Your task to perform on an android device: turn off notifications in google photos Image 0: 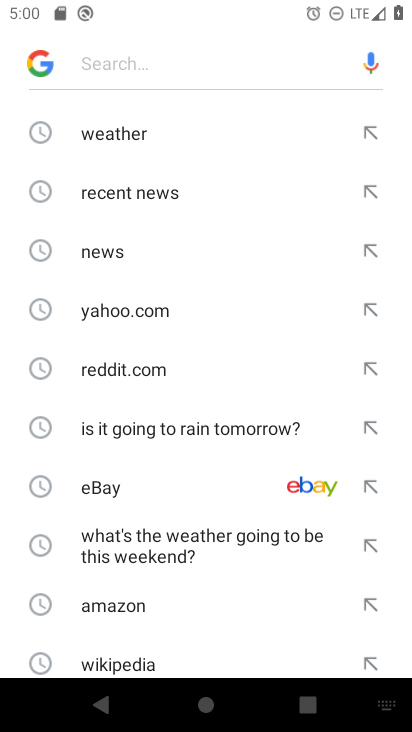
Step 0: press home button
Your task to perform on an android device: turn off notifications in google photos Image 1: 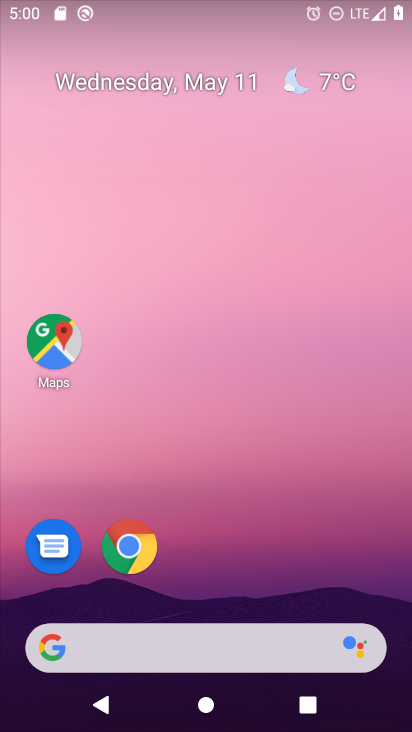
Step 1: drag from (304, 636) to (224, 27)
Your task to perform on an android device: turn off notifications in google photos Image 2: 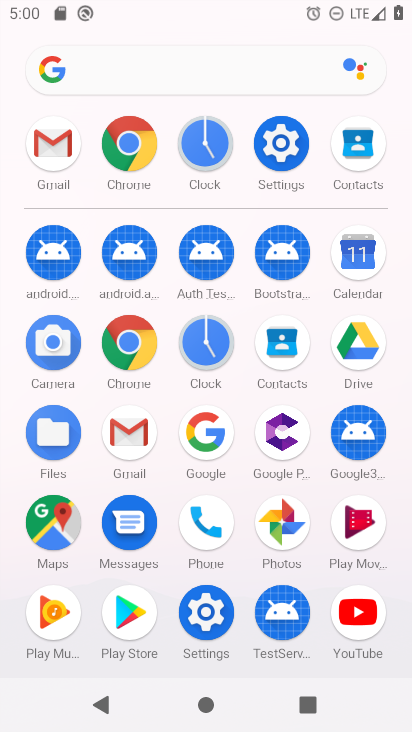
Step 2: click (290, 523)
Your task to perform on an android device: turn off notifications in google photos Image 3: 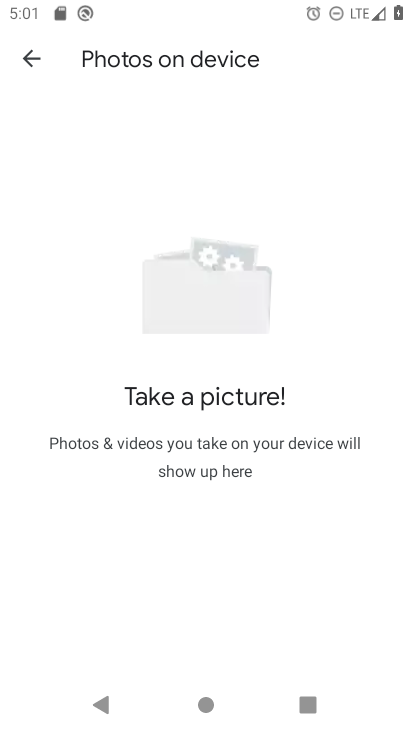
Step 3: press home button
Your task to perform on an android device: turn off notifications in google photos Image 4: 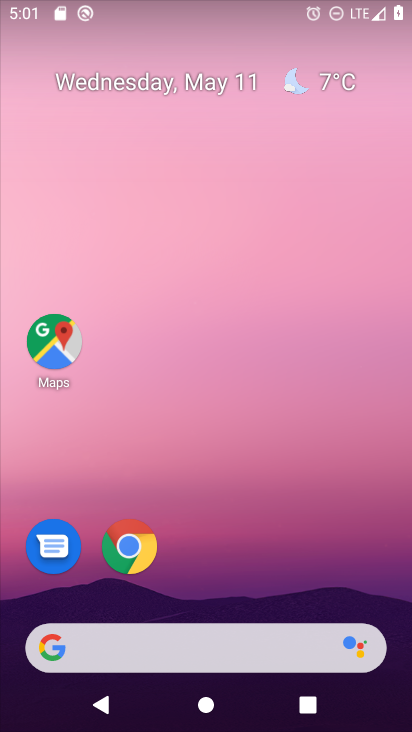
Step 4: drag from (307, 594) to (358, 3)
Your task to perform on an android device: turn off notifications in google photos Image 5: 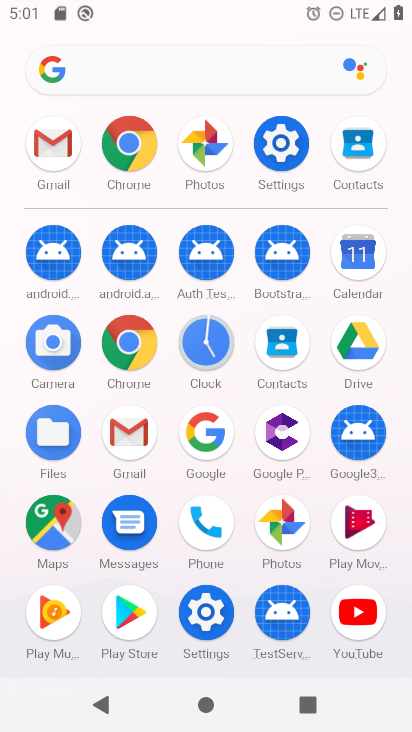
Step 5: click (288, 531)
Your task to perform on an android device: turn off notifications in google photos Image 6: 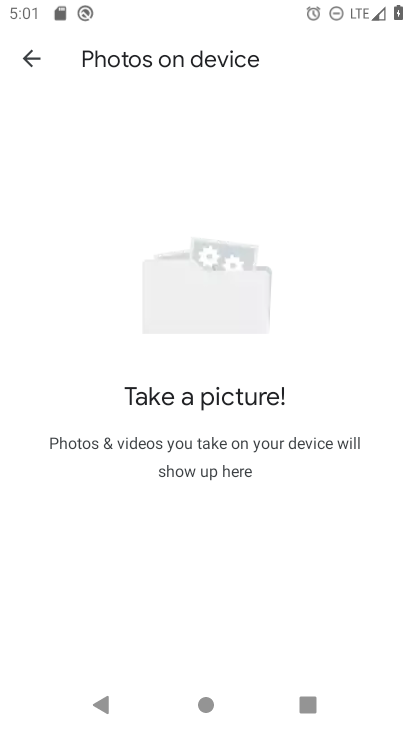
Step 6: press back button
Your task to perform on an android device: turn off notifications in google photos Image 7: 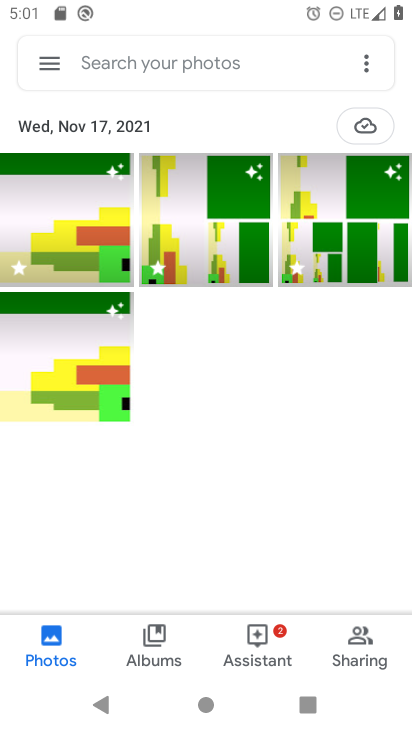
Step 7: click (56, 59)
Your task to perform on an android device: turn off notifications in google photos Image 8: 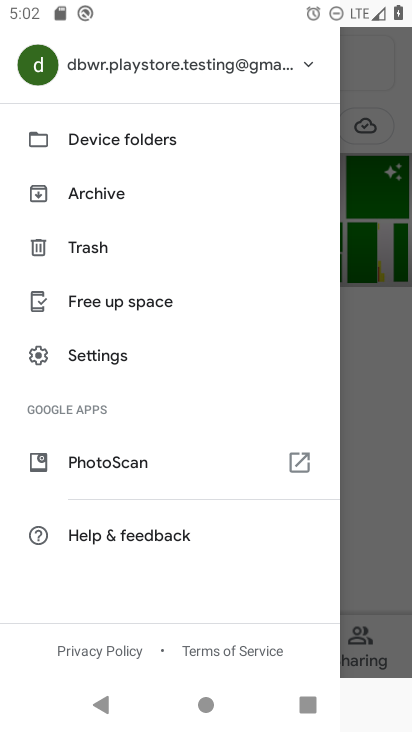
Step 8: click (112, 349)
Your task to perform on an android device: turn off notifications in google photos Image 9: 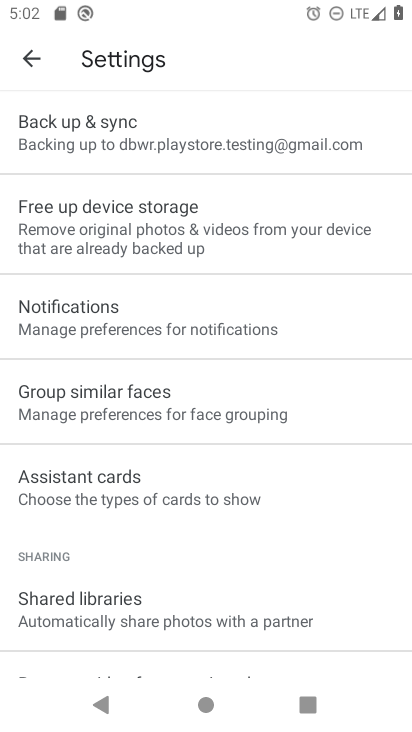
Step 9: click (180, 315)
Your task to perform on an android device: turn off notifications in google photos Image 10: 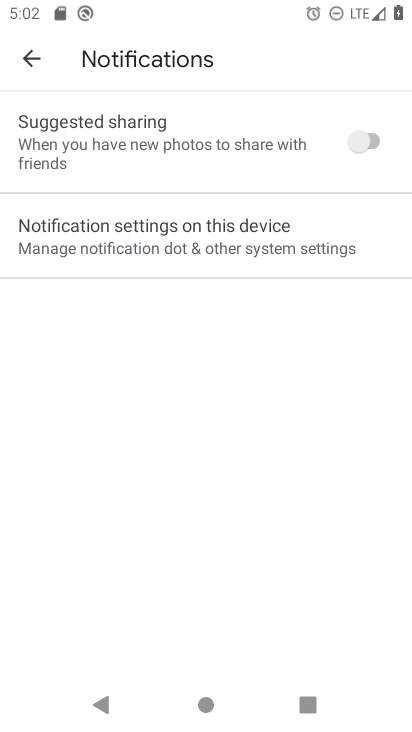
Step 10: click (204, 247)
Your task to perform on an android device: turn off notifications in google photos Image 11: 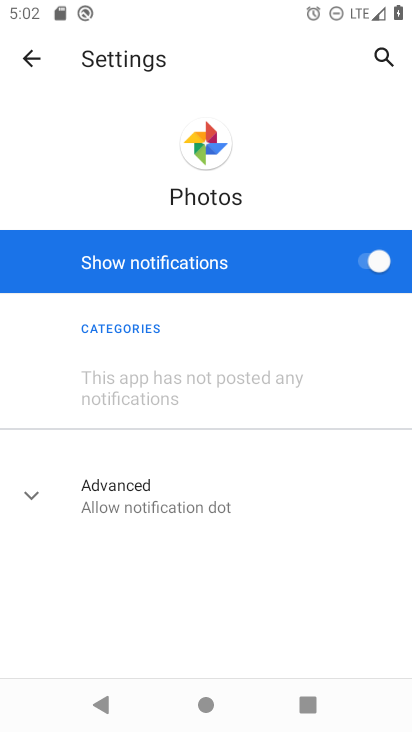
Step 11: click (368, 262)
Your task to perform on an android device: turn off notifications in google photos Image 12: 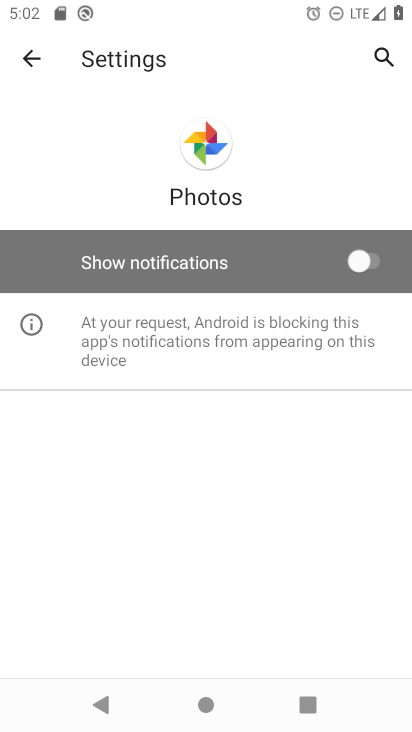
Step 12: task complete